Your task to perform on an android device: turn notification dots off Image 0: 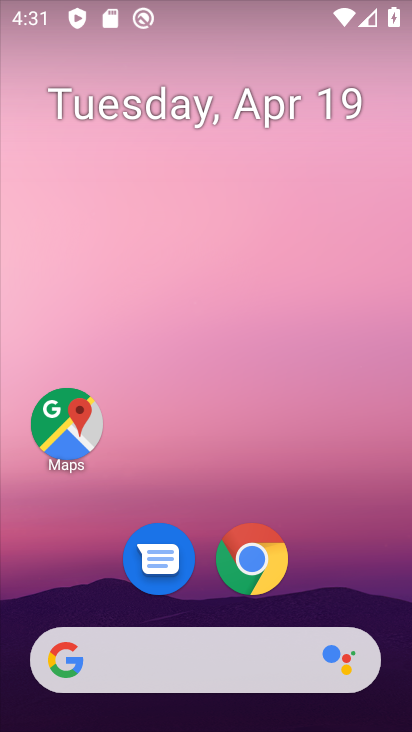
Step 0: drag from (364, 581) to (227, 49)
Your task to perform on an android device: turn notification dots off Image 1: 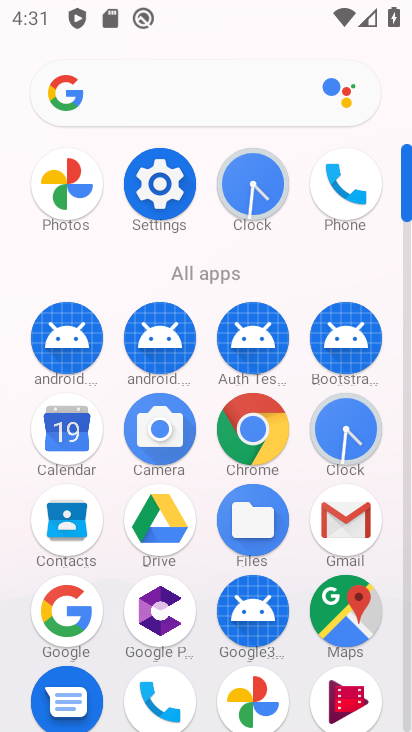
Step 1: click (161, 167)
Your task to perform on an android device: turn notification dots off Image 2: 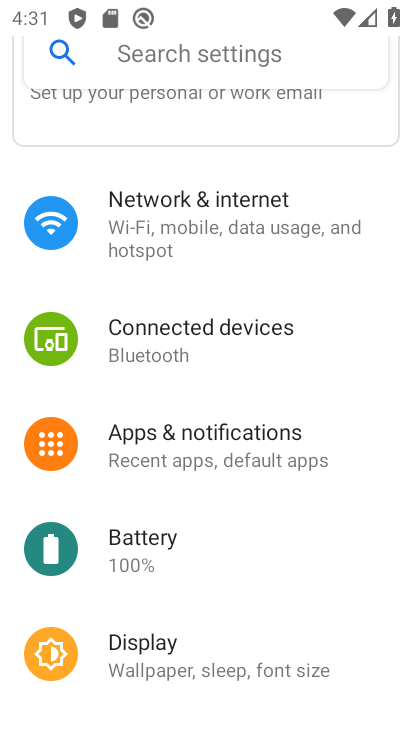
Step 2: drag from (208, 509) to (180, 305)
Your task to perform on an android device: turn notification dots off Image 3: 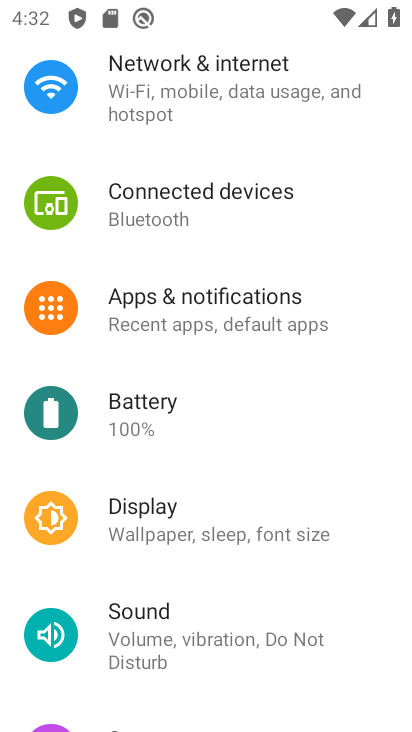
Step 3: click (226, 323)
Your task to perform on an android device: turn notification dots off Image 4: 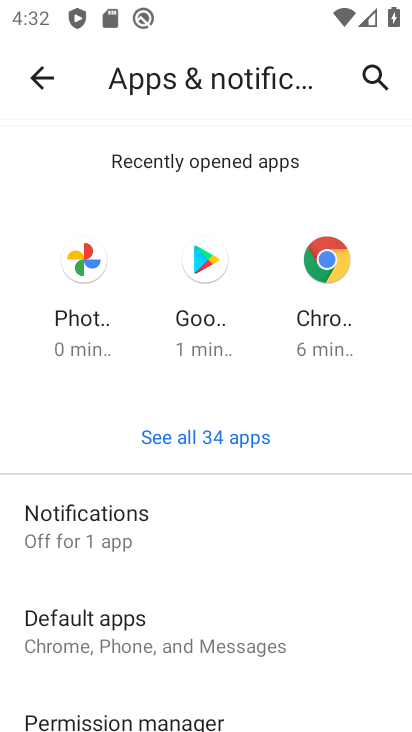
Step 4: drag from (259, 559) to (136, 309)
Your task to perform on an android device: turn notification dots off Image 5: 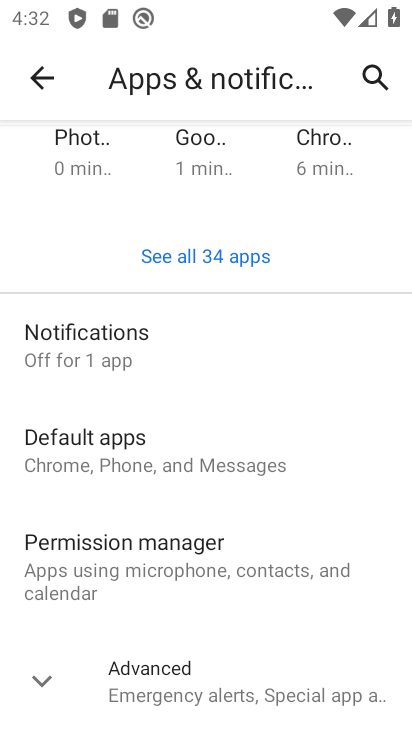
Step 5: drag from (168, 636) to (83, 224)
Your task to perform on an android device: turn notification dots off Image 6: 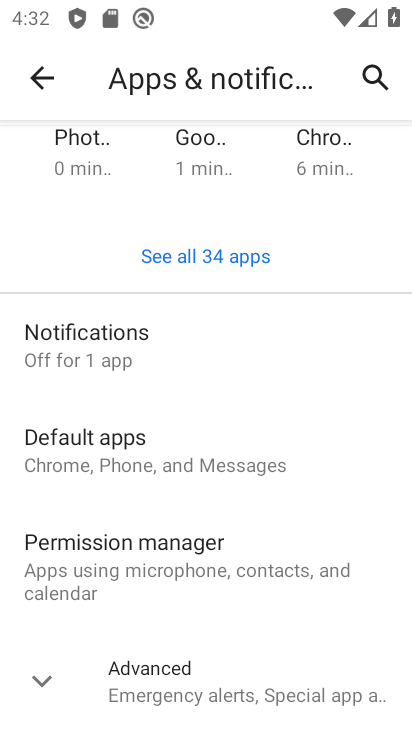
Step 6: click (183, 333)
Your task to perform on an android device: turn notification dots off Image 7: 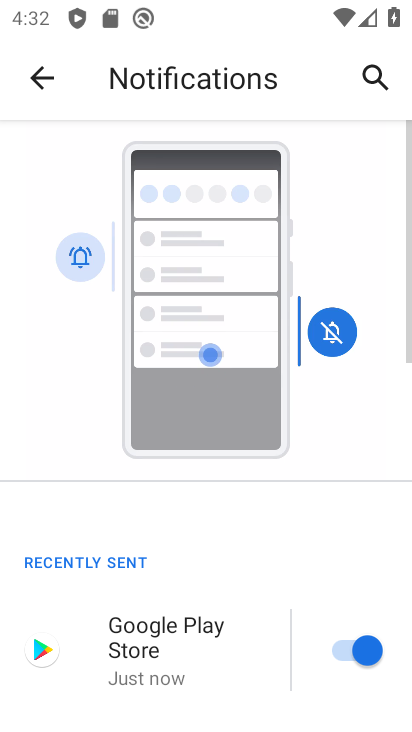
Step 7: drag from (206, 557) to (113, 131)
Your task to perform on an android device: turn notification dots off Image 8: 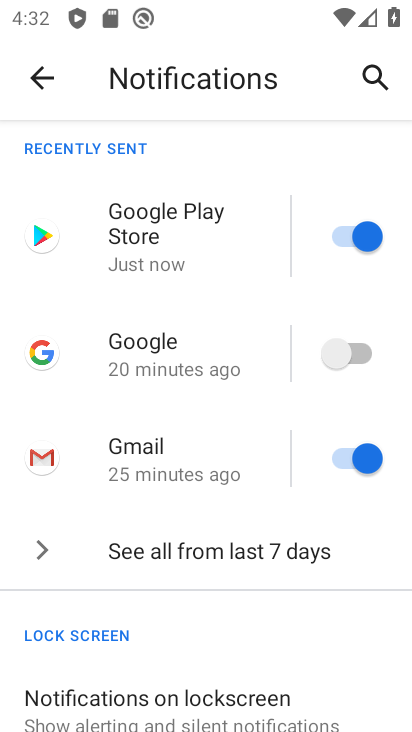
Step 8: drag from (182, 541) to (174, 344)
Your task to perform on an android device: turn notification dots off Image 9: 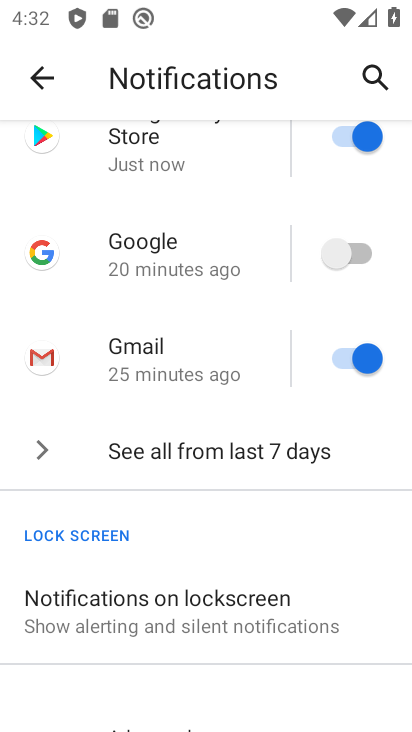
Step 9: drag from (216, 560) to (210, 405)
Your task to perform on an android device: turn notification dots off Image 10: 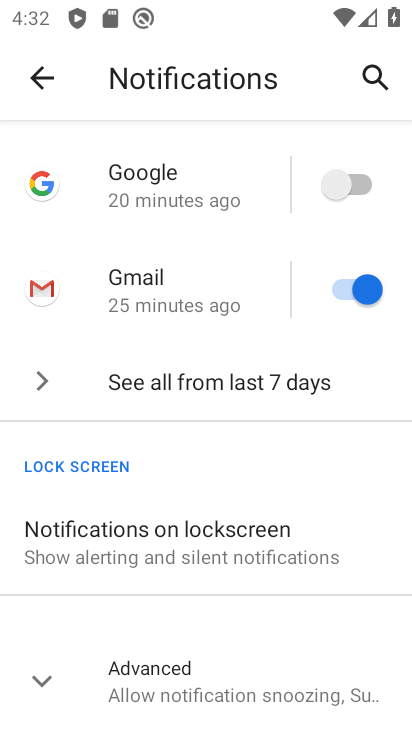
Step 10: drag from (216, 613) to (200, 472)
Your task to perform on an android device: turn notification dots off Image 11: 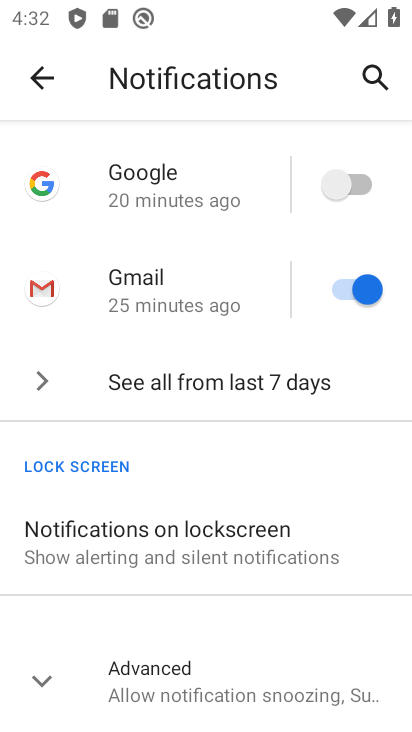
Step 11: click (181, 682)
Your task to perform on an android device: turn notification dots off Image 12: 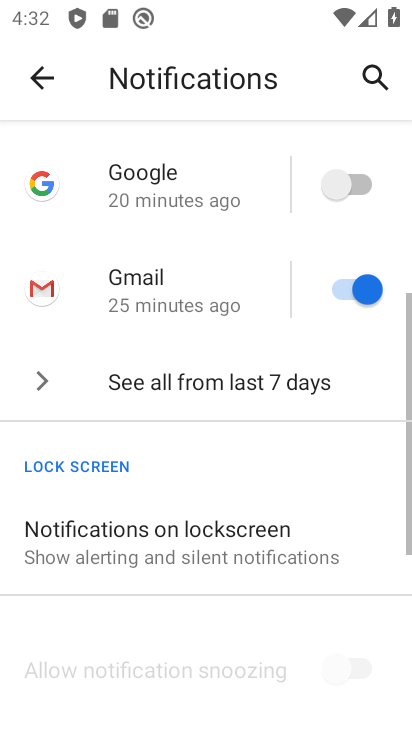
Step 12: drag from (188, 644) to (193, 564)
Your task to perform on an android device: turn notification dots off Image 13: 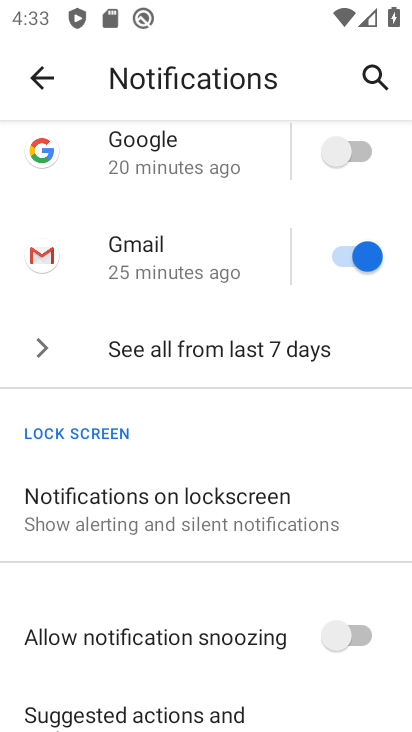
Step 13: drag from (245, 612) to (221, 285)
Your task to perform on an android device: turn notification dots off Image 14: 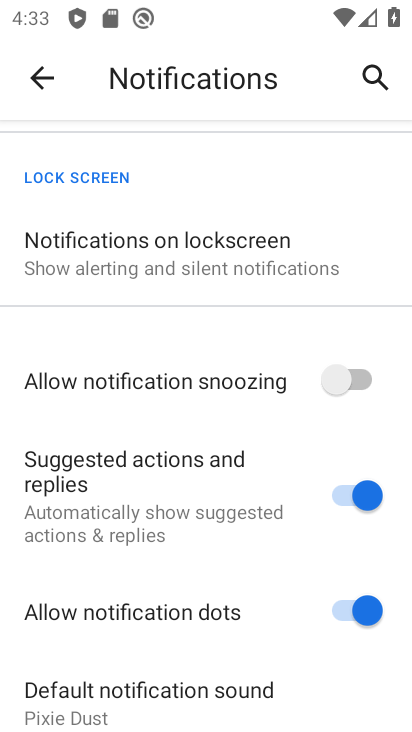
Step 14: click (258, 589)
Your task to perform on an android device: turn notification dots off Image 15: 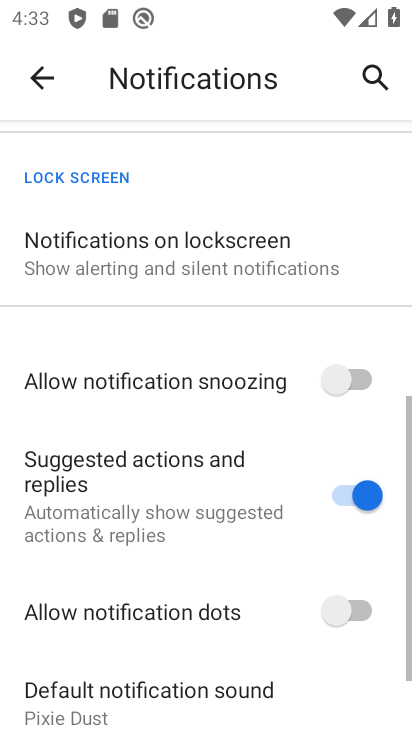
Step 15: task complete